Your task to perform on an android device: change timer sound Image 0: 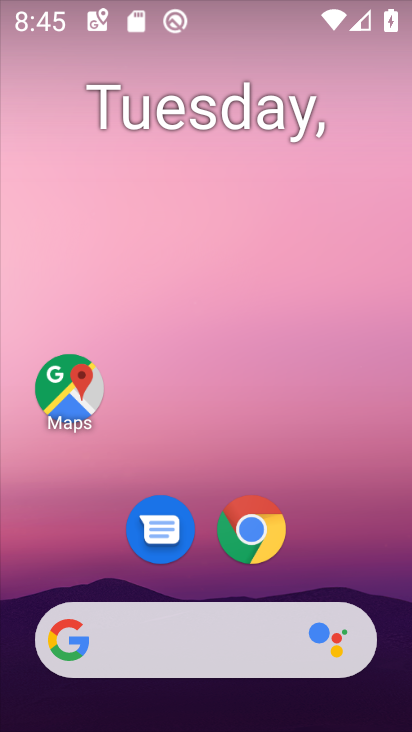
Step 0: drag from (170, 548) to (237, 82)
Your task to perform on an android device: change timer sound Image 1: 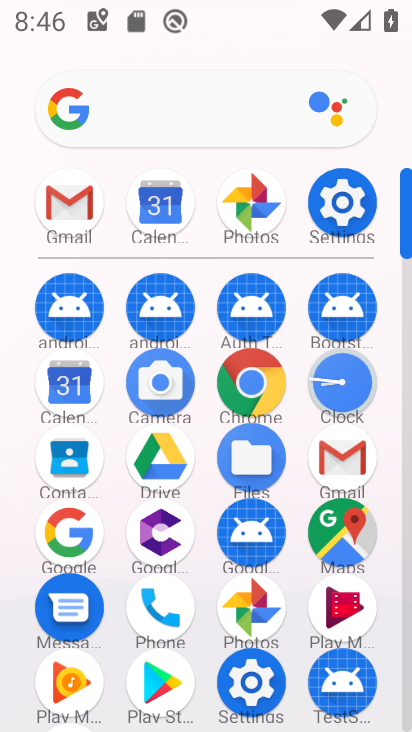
Step 1: click (337, 377)
Your task to perform on an android device: change timer sound Image 2: 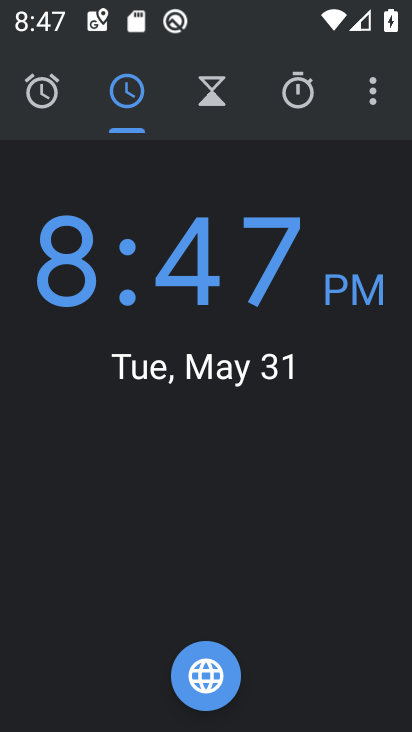
Step 2: click (378, 79)
Your task to perform on an android device: change timer sound Image 3: 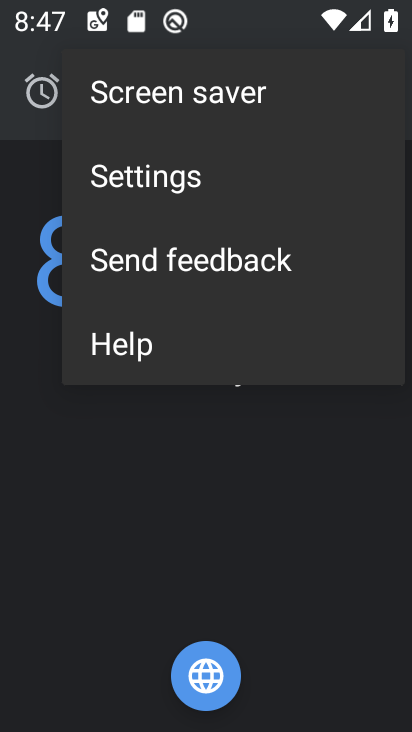
Step 3: click (103, 193)
Your task to perform on an android device: change timer sound Image 4: 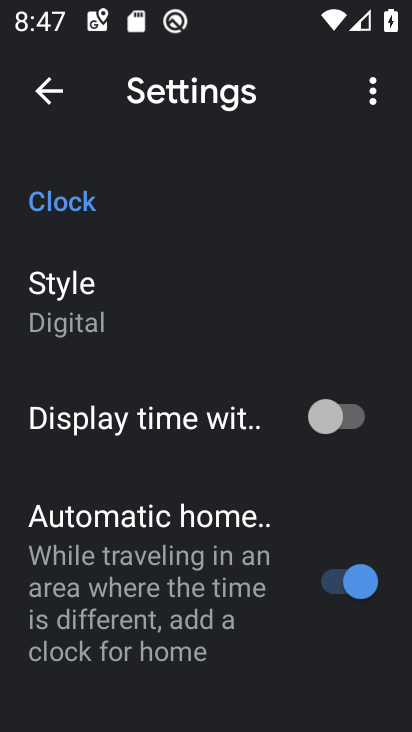
Step 4: drag from (132, 596) to (232, 57)
Your task to perform on an android device: change timer sound Image 5: 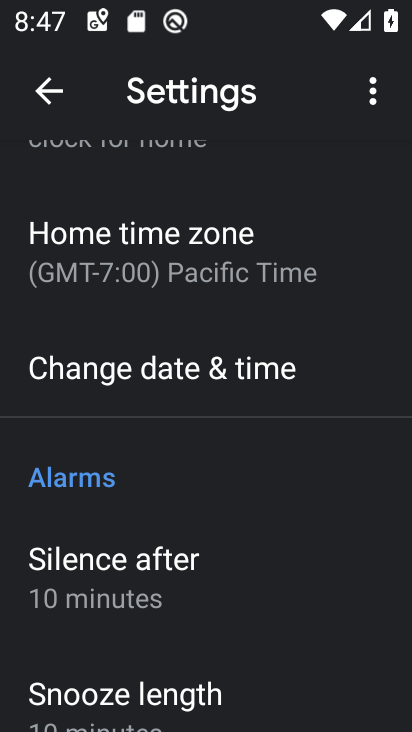
Step 5: drag from (189, 627) to (181, 253)
Your task to perform on an android device: change timer sound Image 6: 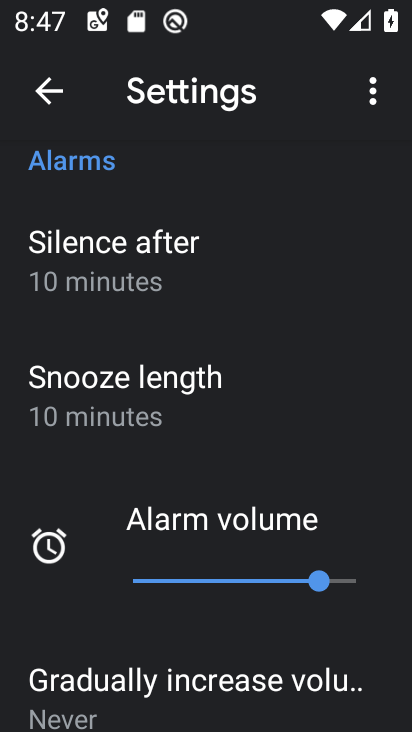
Step 6: drag from (157, 641) to (173, 112)
Your task to perform on an android device: change timer sound Image 7: 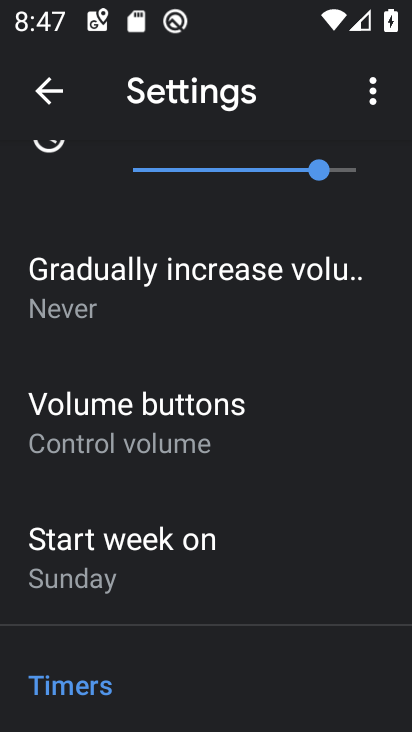
Step 7: drag from (154, 646) to (234, 116)
Your task to perform on an android device: change timer sound Image 8: 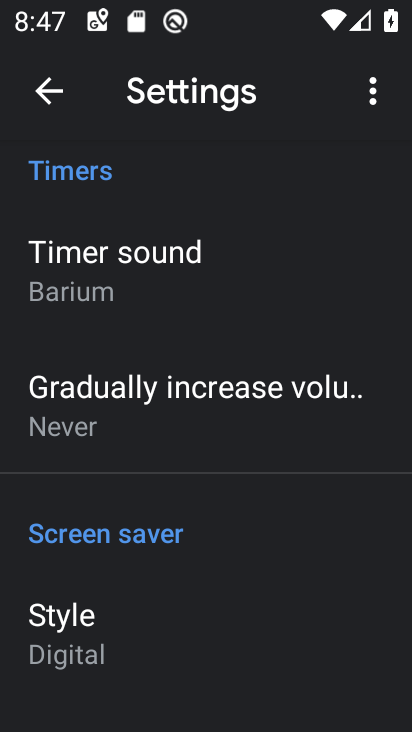
Step 8: click (98, 289)
Your task to perform on an android device: change timer sound Image 9: 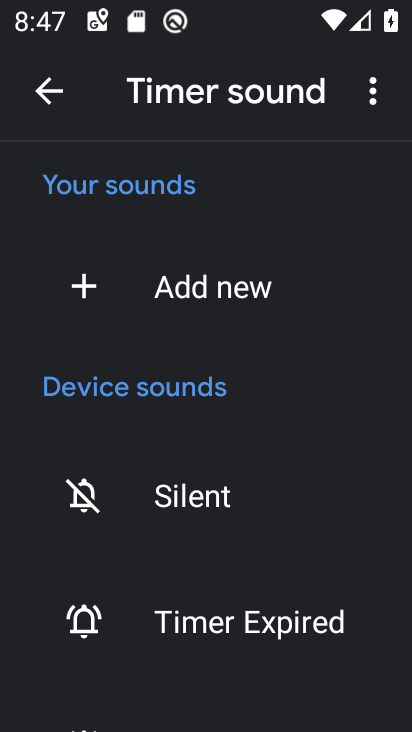
Step 9: click (213, 632)
Your task to perform on an android device: change timer sound Image 10: 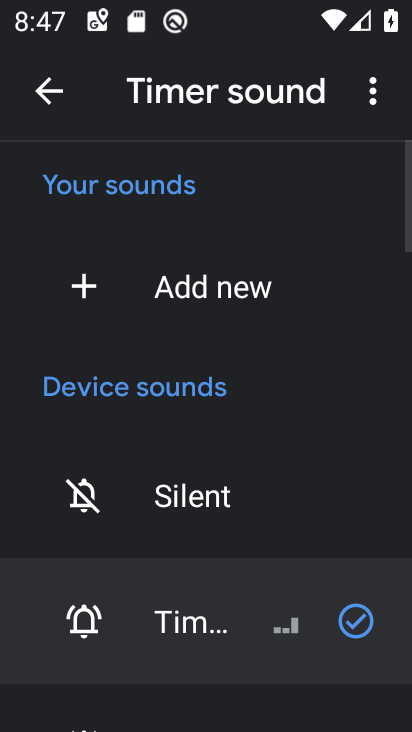
Step 10: task complete